Your task to perform on an android device: turn off priority inbox in the gmail app Image 0: 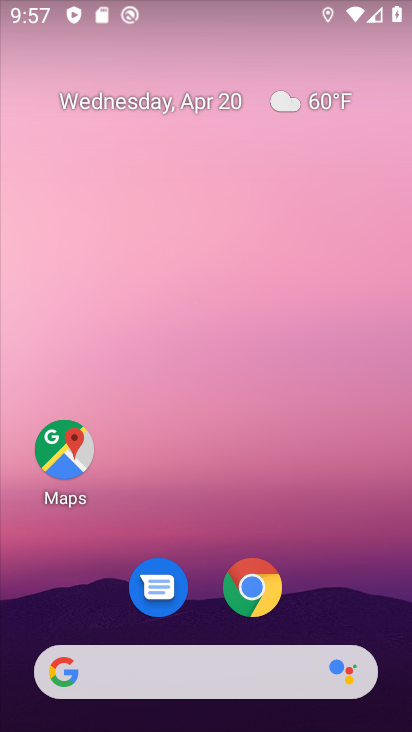
Step 0: drag from (312, 571) to (197, 109)
Your task to perform on an android device: turn off priority inbox in the gmail app Image 1: 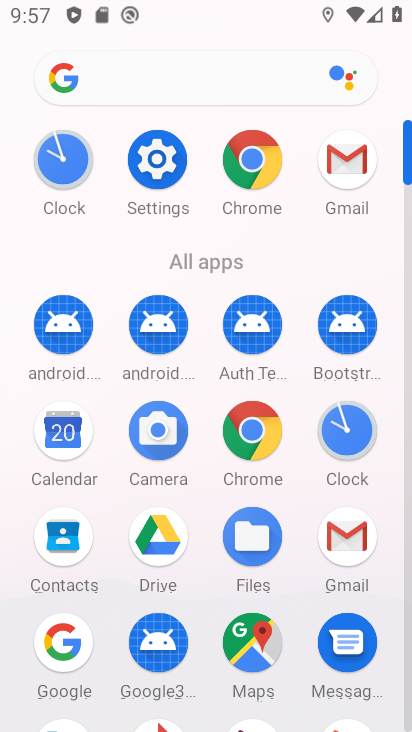
Step 1: click (341, 163)
Your task to perform on an android device: turn off priority inbox in the gmail app Image 2: 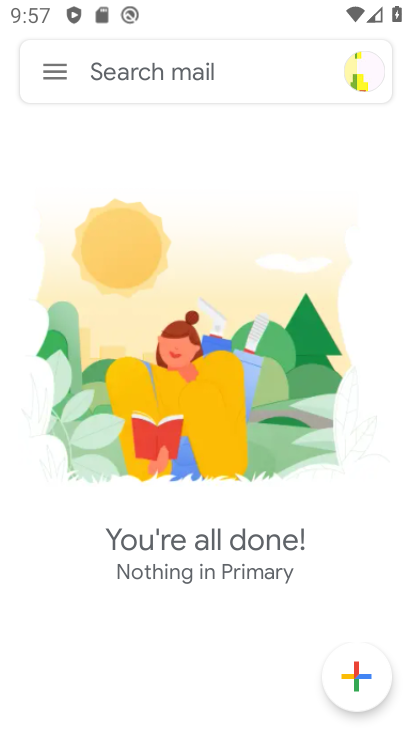
Step 2: click (46, 82)
Your task to perform on an android device: turn off priority inbox in the gmail app Image 3: 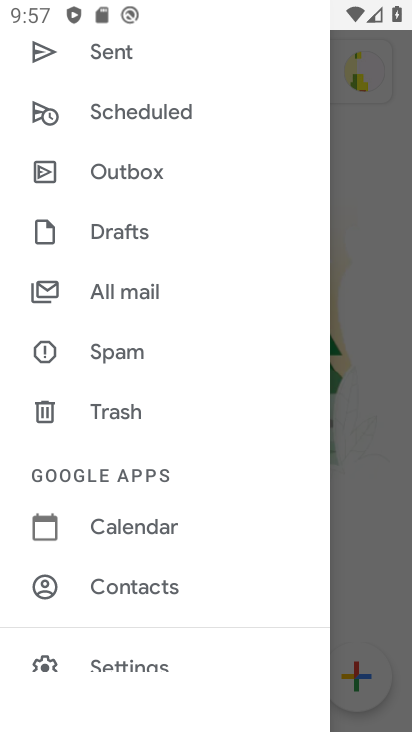
Step 3: drag from (149, 637) to (155, 417)
Your task to perform on an android device: turn off priority inbox in the gmail app Image 4: 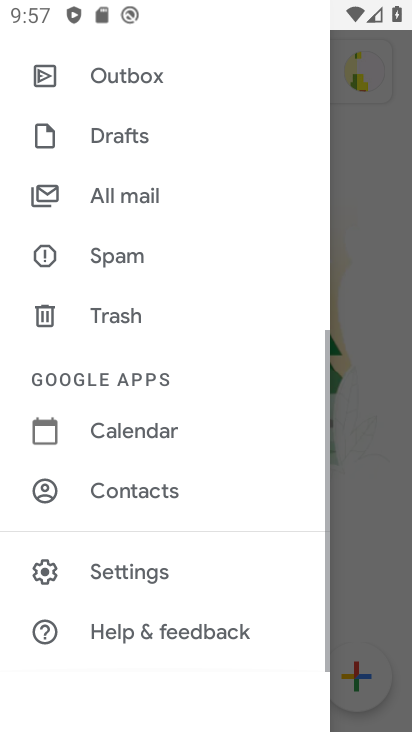
Step 4: click (121, 578)
Your task to perform on an android device: turn off priority inbox in the gmail app Image 5: 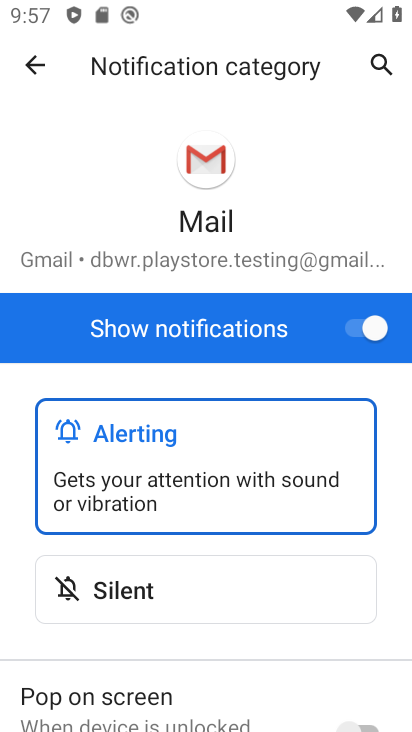
Step 5: press back button
Your task to perform on an android device: turn off priority inbox in the gmail app Image 6: 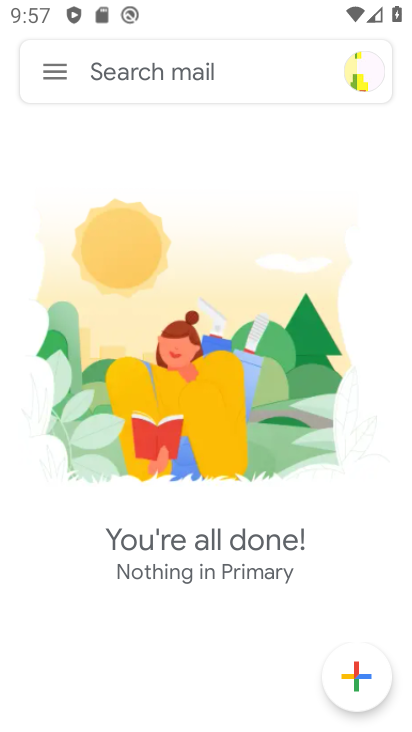
Step 6: click (41, 71)
Your task to perform on an android device: turn off priority inbox in the gmail app Image 7: 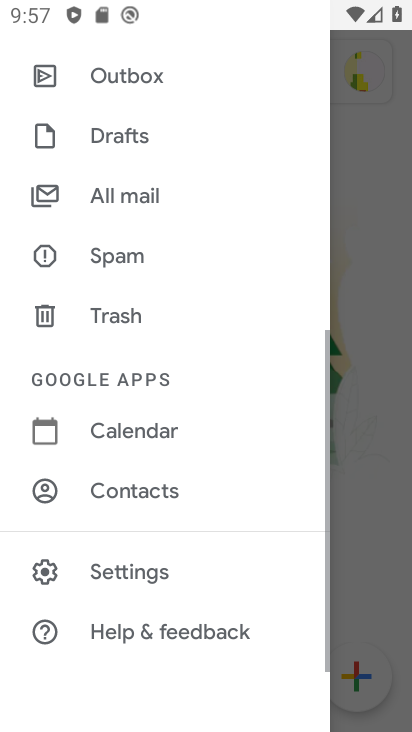
Step 7: click (115, 567)
Your task to perform on an android device: turn off priority inbox in the gmail app Image 8: 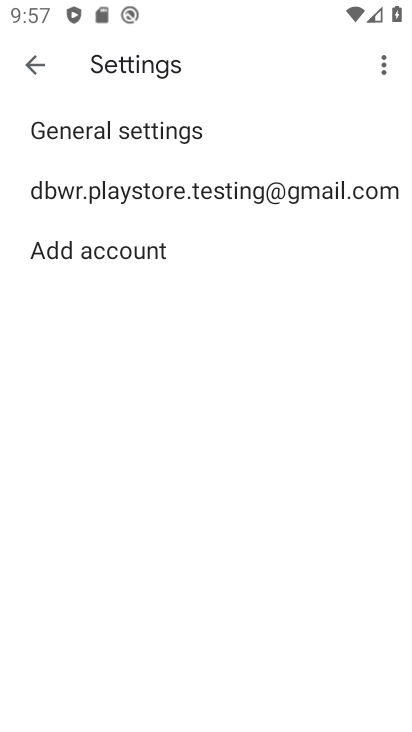
Step 8: click (133, 183)
Your task to perform on an android device: turn off priority inbox in the gmail app Image 9: 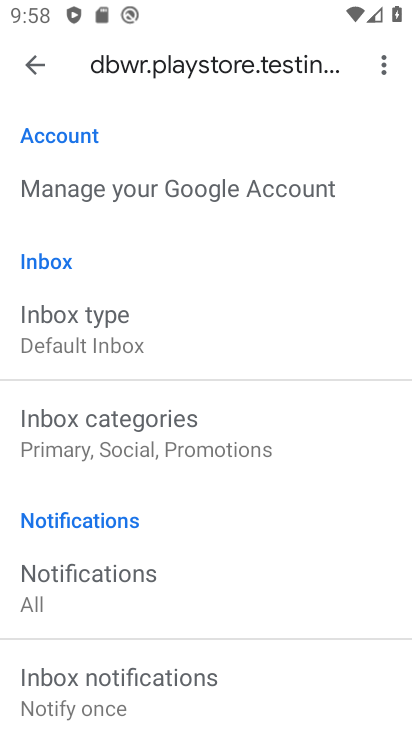
Step 9: click (88, 322)
Your task to perform on an android device: turn off priority inbox in the gmail app Image 10: 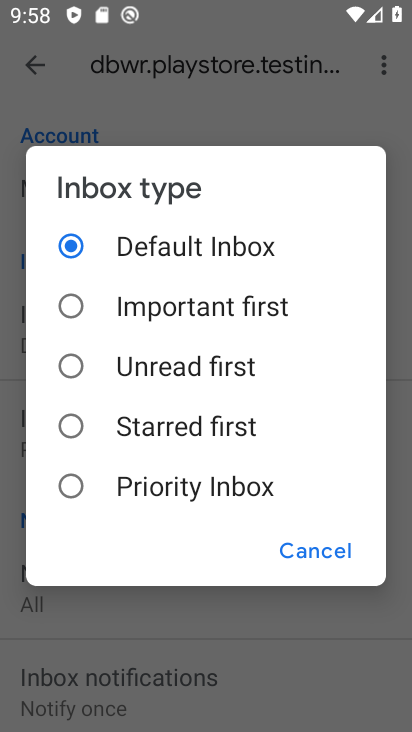
Step 10: task complete